Your task to perform on an android device: toggle wifi Image 0: 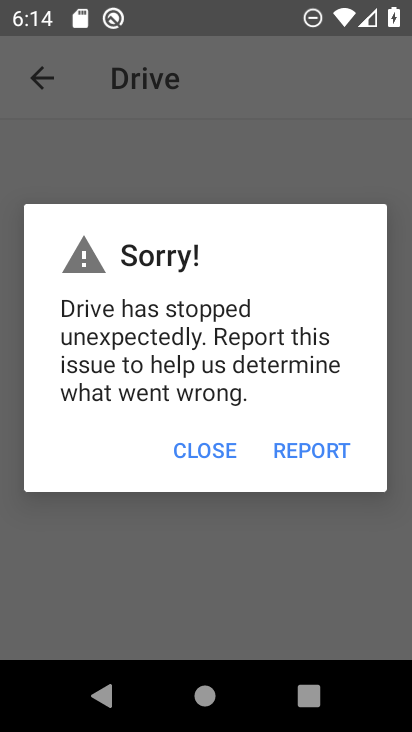
Step 0: press home button
Your task to perform on an android device: toggle wifi Image 1: 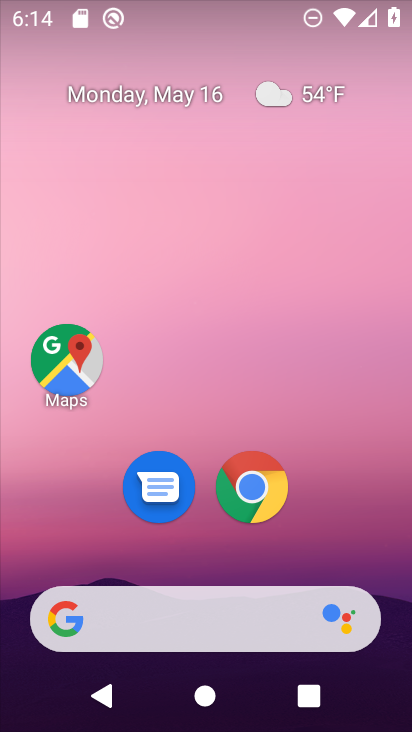
Step 1: drag from (212, 594) to (259, 228)
Your task to perform on an android device: toggle wifi Image 2: 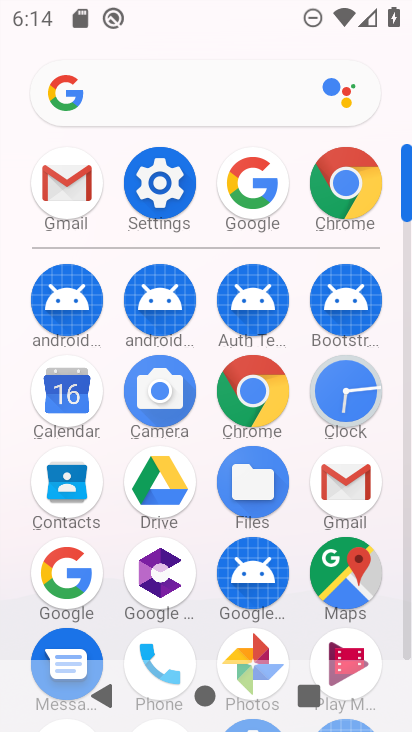
Step 2: click (157, 192)
Your task to perform on an android device: toggle wifi Image 3: 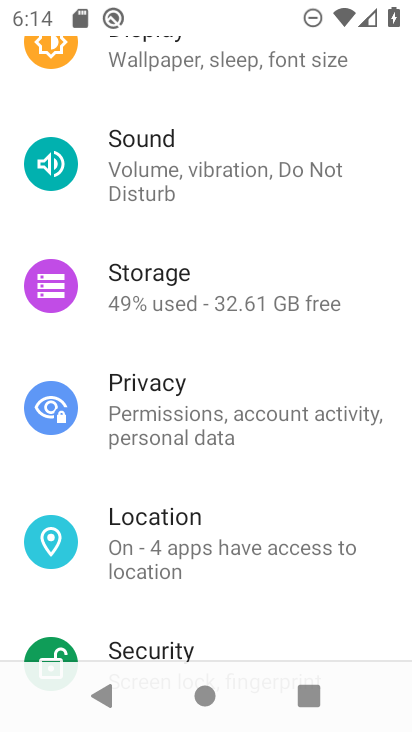
Step 3: drag from (214, 101) to (177, 568)
Your task to perform on an android device: toggle wifi Image 4: 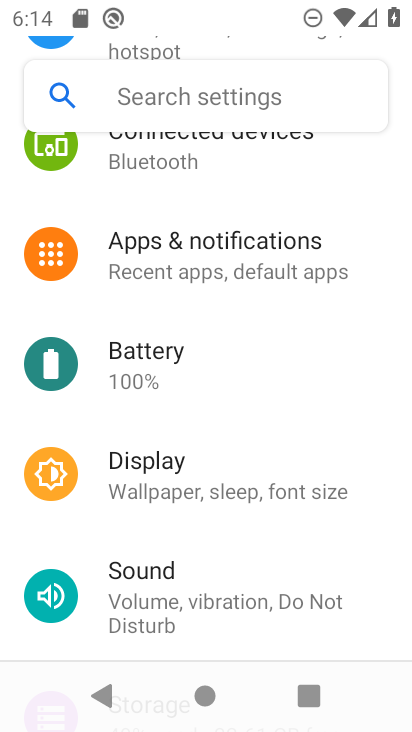
Step 4: drag from (227, 161) to (223, 641)
Your task to perform on an android device: toggle wifi Image 5: 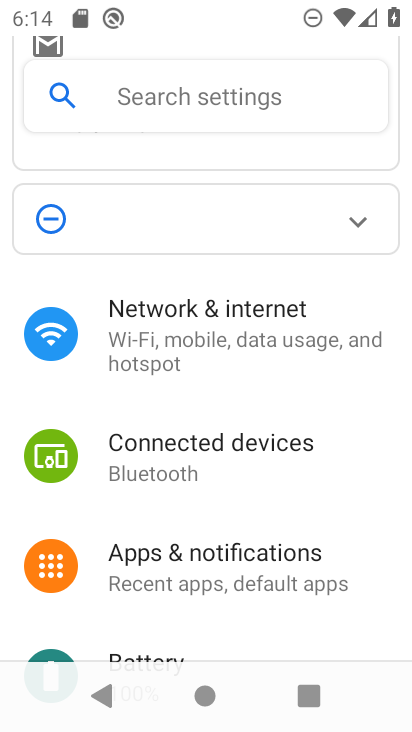
Step 5: click (200, 344)
Your task to perform on an android device: toggle wifi Image 6: 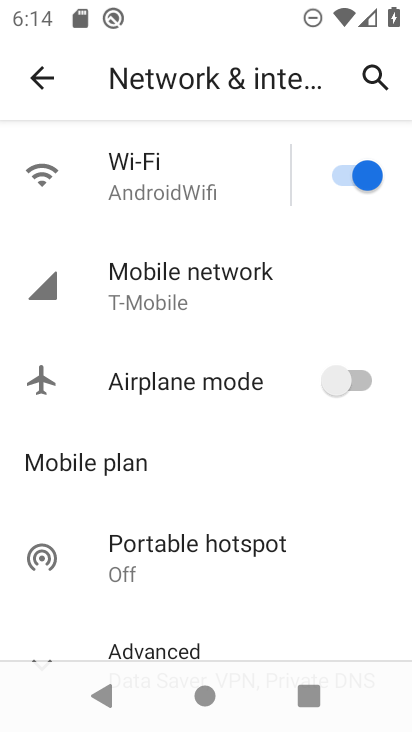
Step 6: drag from (217, 630) to (236, 352)
Your task to perform on an android device: toggle wifi Image 7: 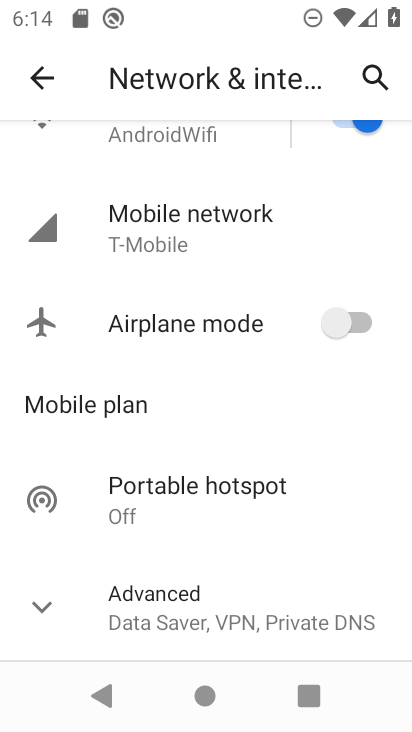
Step 7: drag from (284, 161) to (284, 464)
Your task to perform on an android device: toggle wifi Image 8: 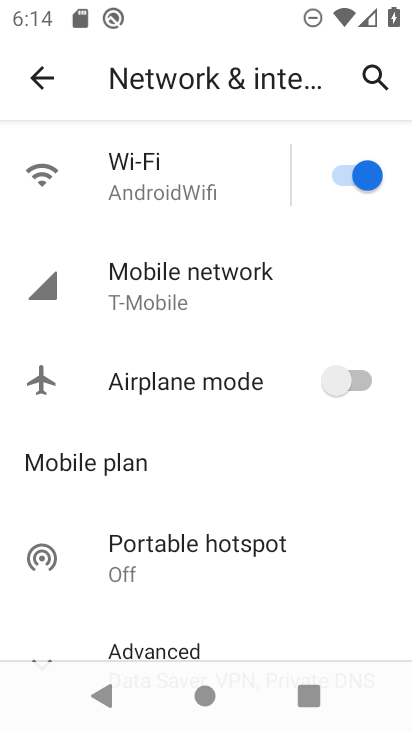
Step 8: click (344, 170)
Your task to perform on an android device: toggle wifi Image 9: 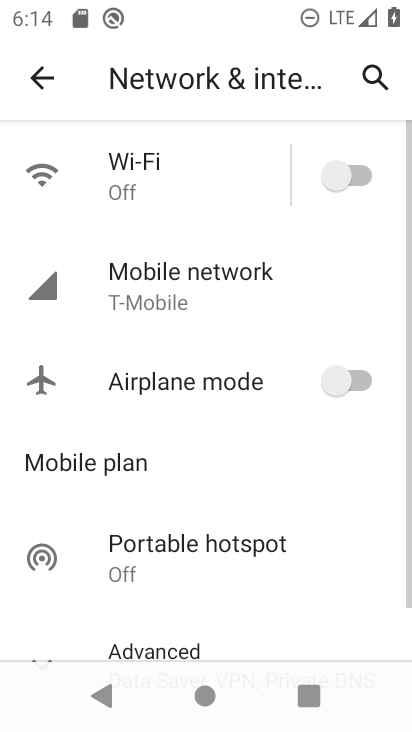
Step 9: task complete